Your task to perform on an android device: Play the new Taylor Swift video on YouTube Image 0: 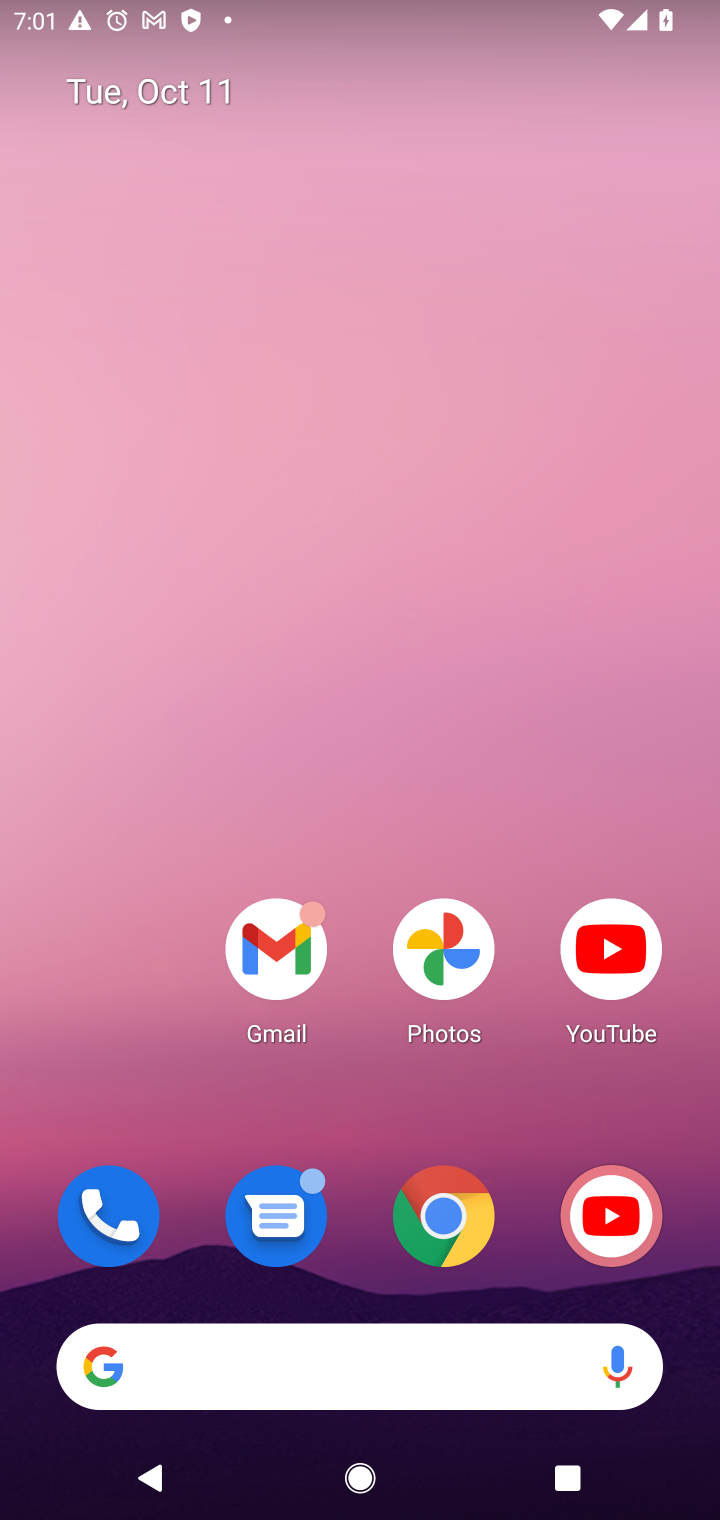
Step 0: click (478, 1214)
Your task to perform on an android device: Play the new Taylor Swift video on YouTube Image 1: 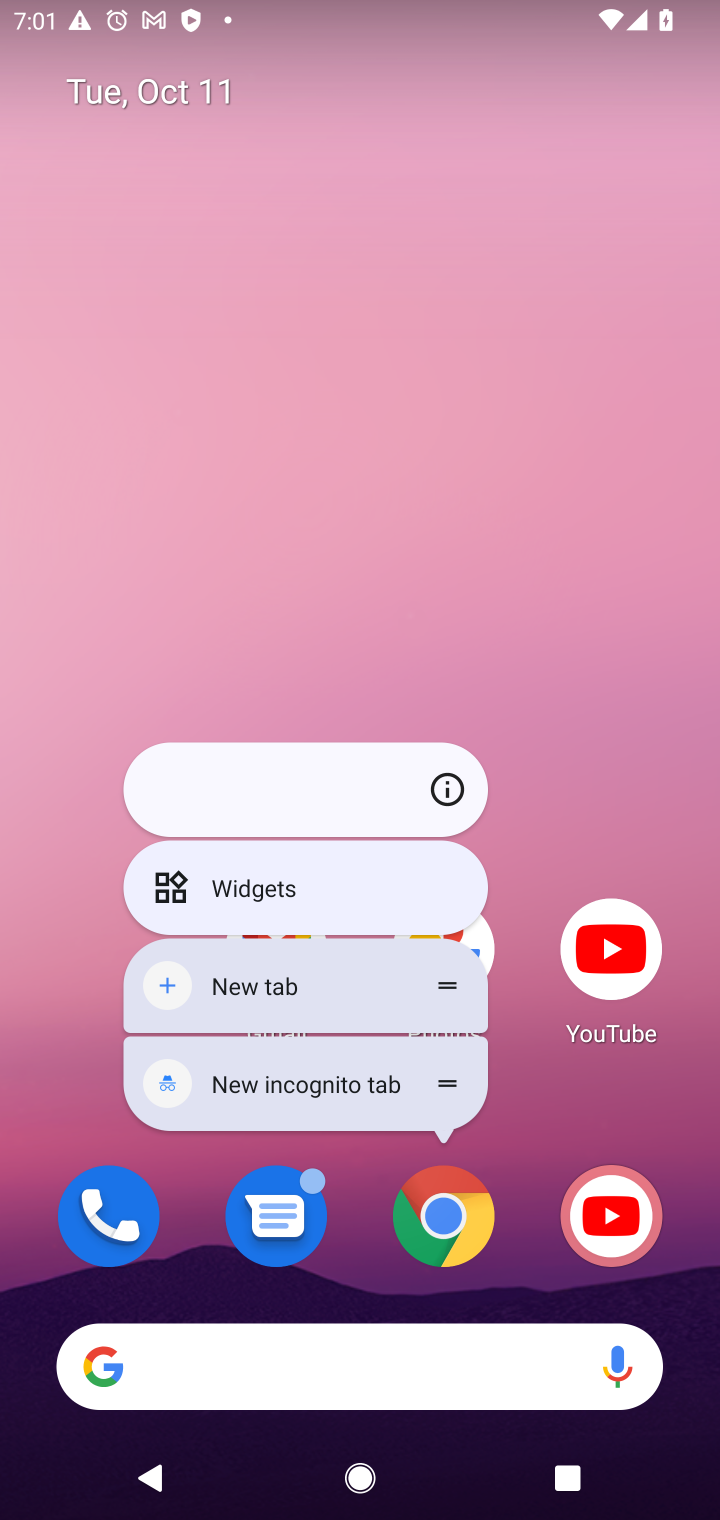
Step 1: click (453, 1213)
Your task to perform on an android device: Play the new Taylor Swift video on YouTube Image 2: 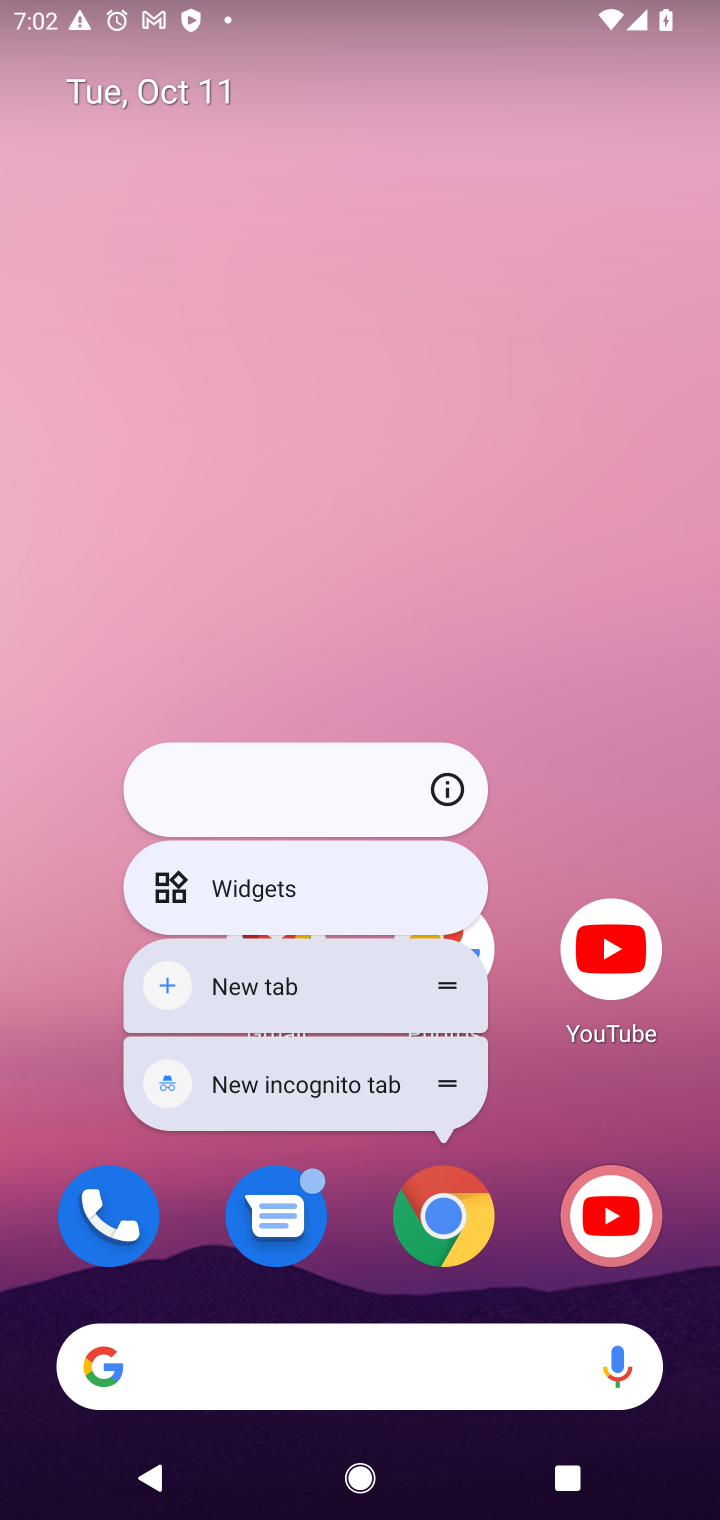
Step 2: click (617, 981)
Your task to perform on an android device: Play the new Taylor Swift video on YouTube Image 3: 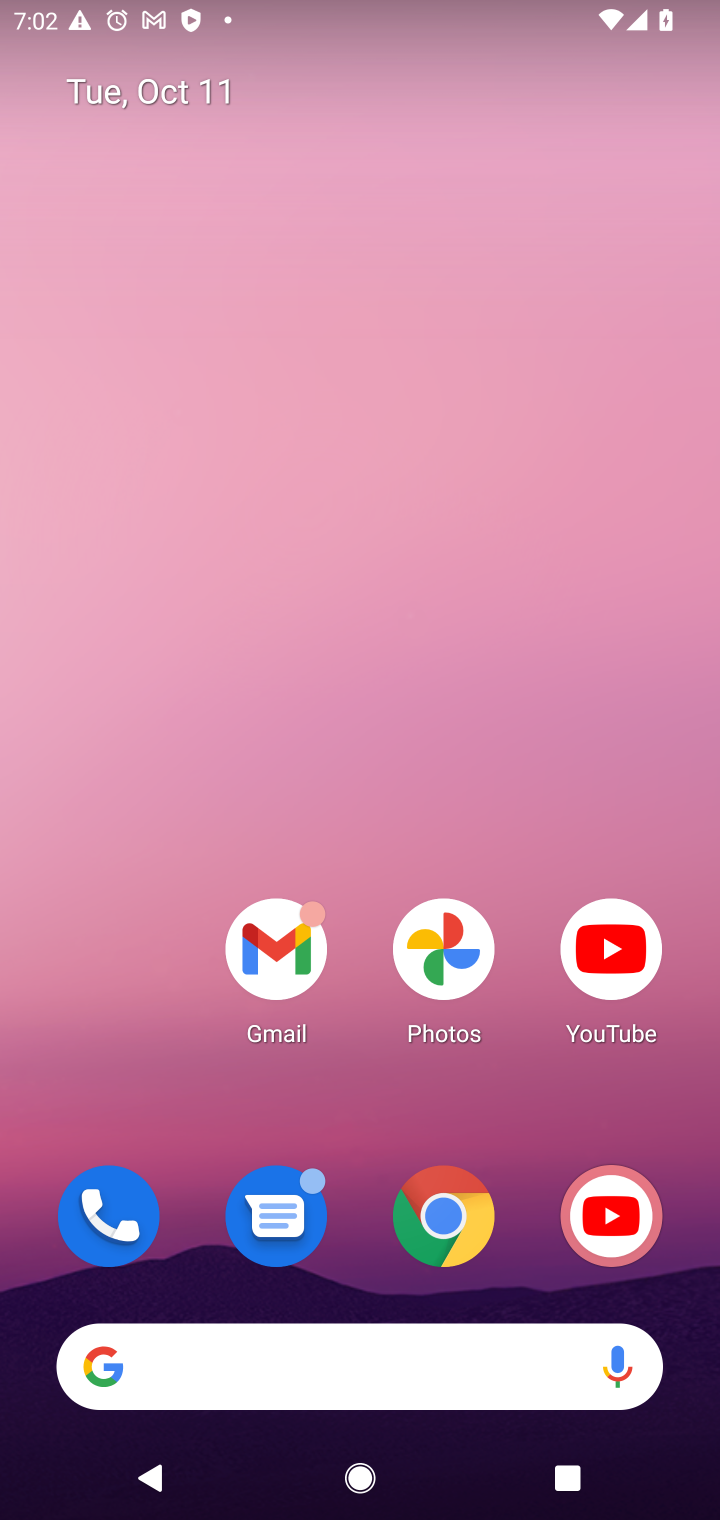
Step 3: click (617, 981)
Your task to perform on an android device: Play the new Taylor Swift video on YouTube Image 4: 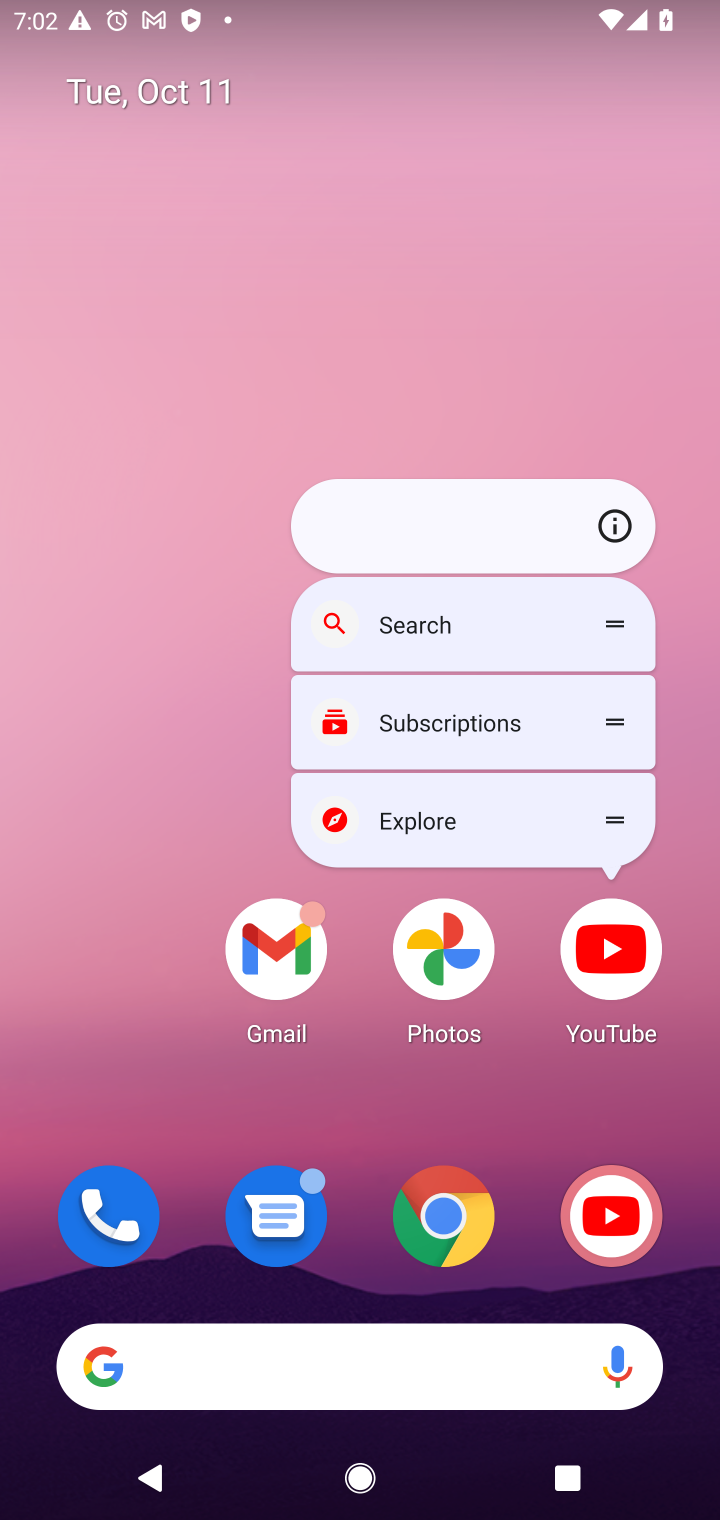
Step 4: click (617, 981)
Your task to perform on an android device: Play the new Taylor Swift video on YouTube Image 5: 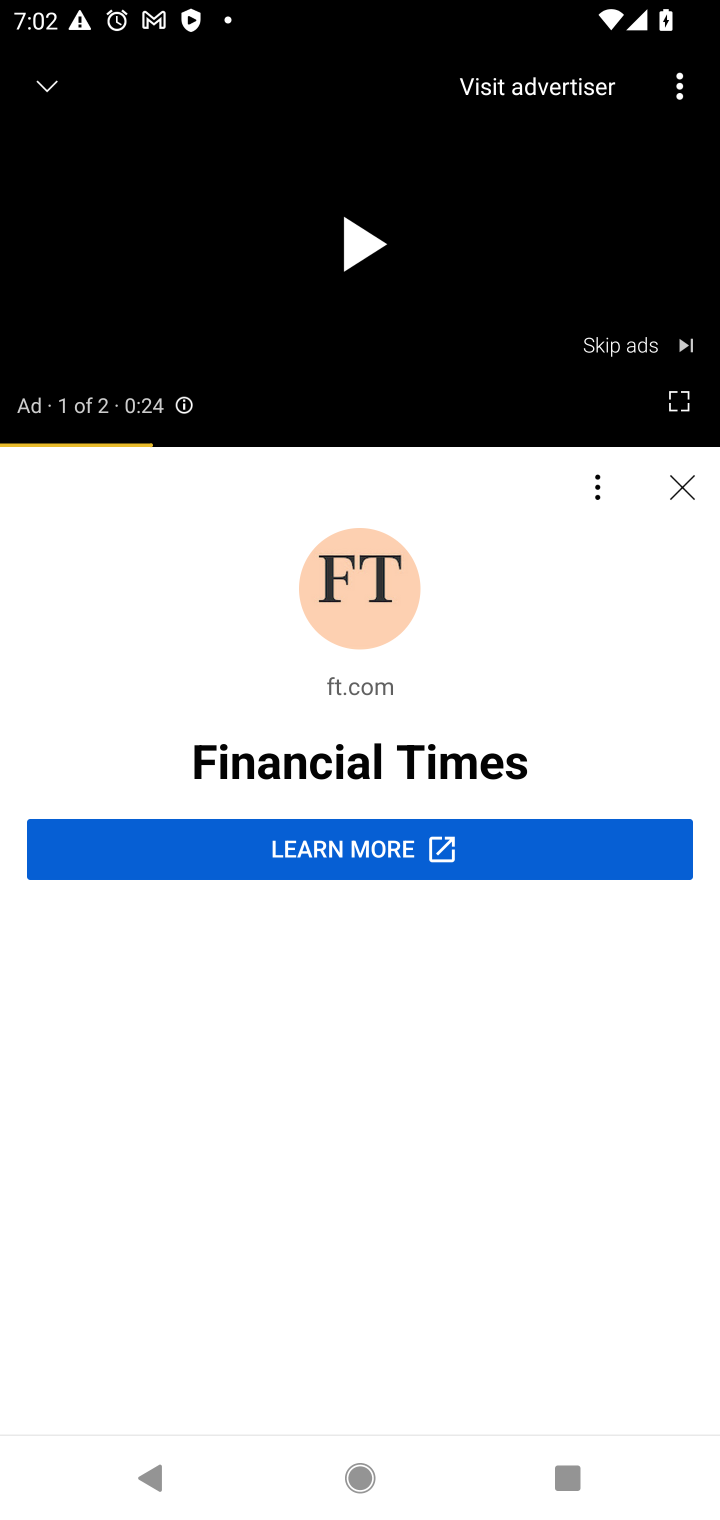
Step 5: click (63, 82)
Your task to perform on an android device: Play the new Taylor Swift video on YouTube Image 6: 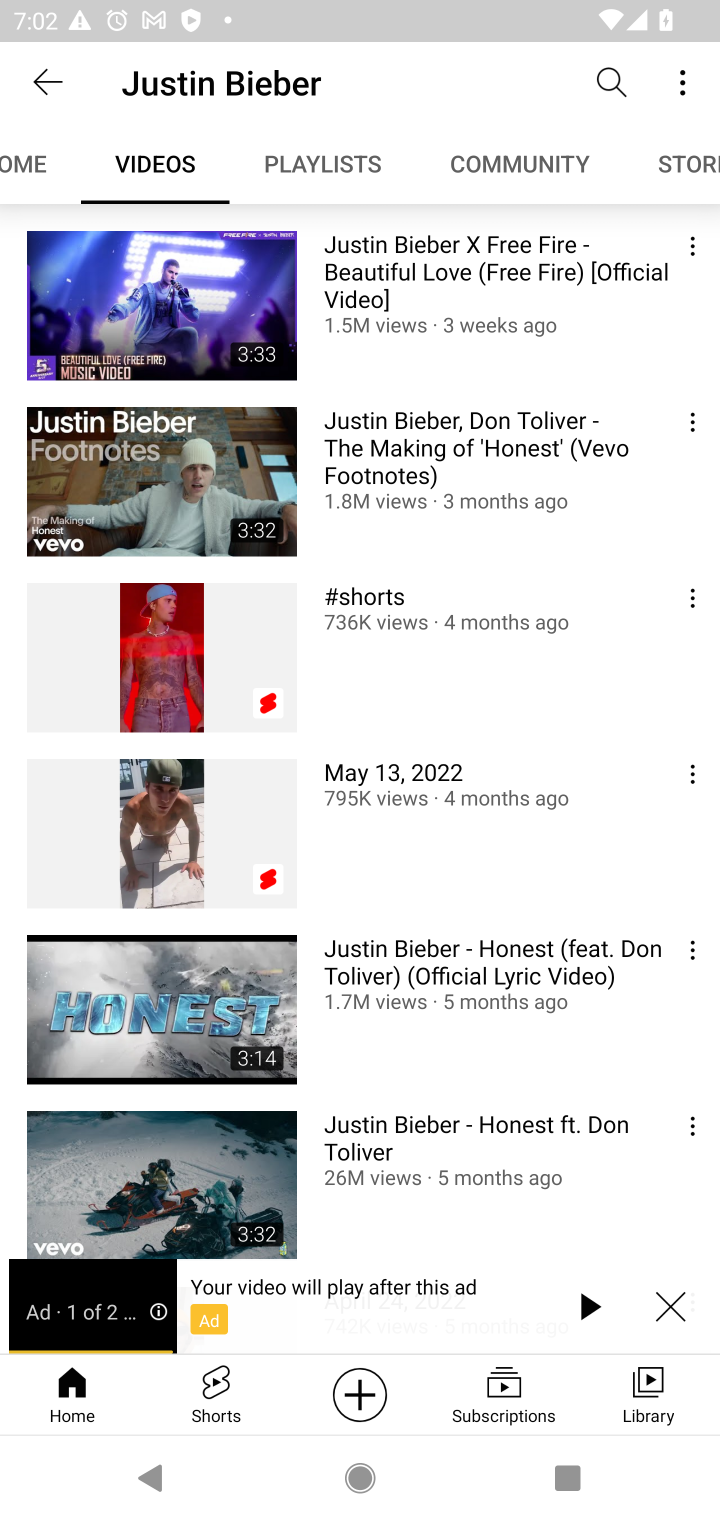
Step 6: click (605, 84)
Your task to perform on an android device: Play the new Taylor Swift video on YouTube Image 7: 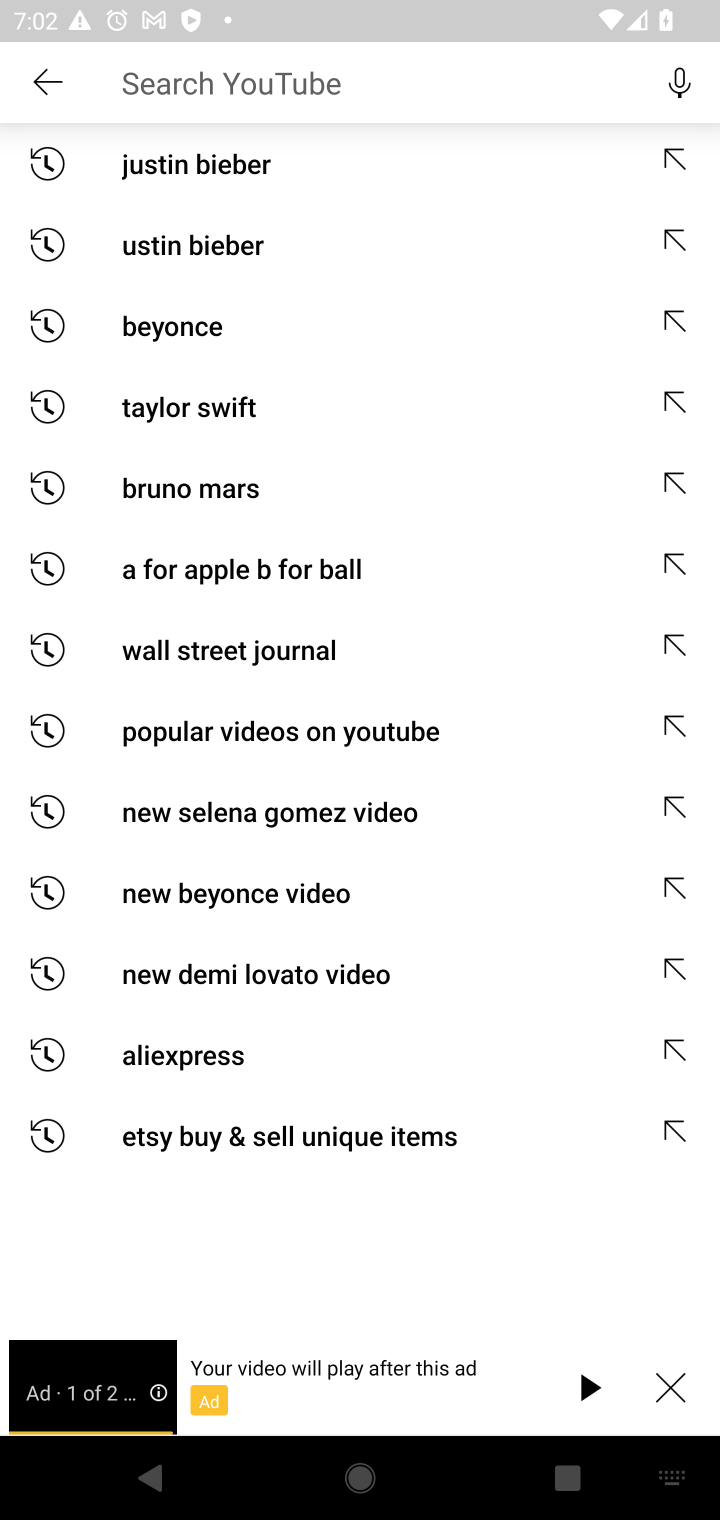
Step 7: click (252, 404)
Your task to perform on an android device: Play the new Taylor Swift video on YouTube Image 8: 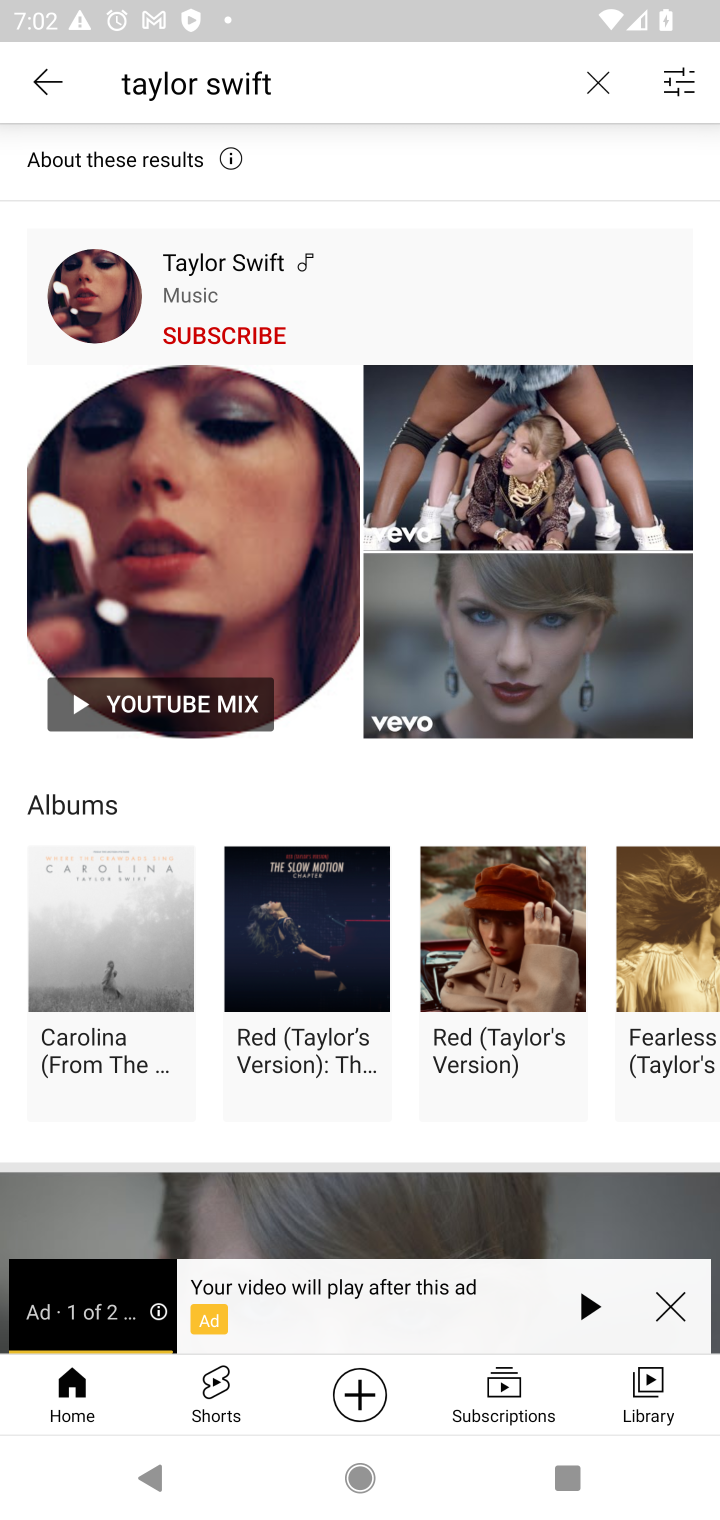
Step 8: click (122, 321)
Your task to perform on an android device: Play the new Taylor Swift video on YouTube Image 9: 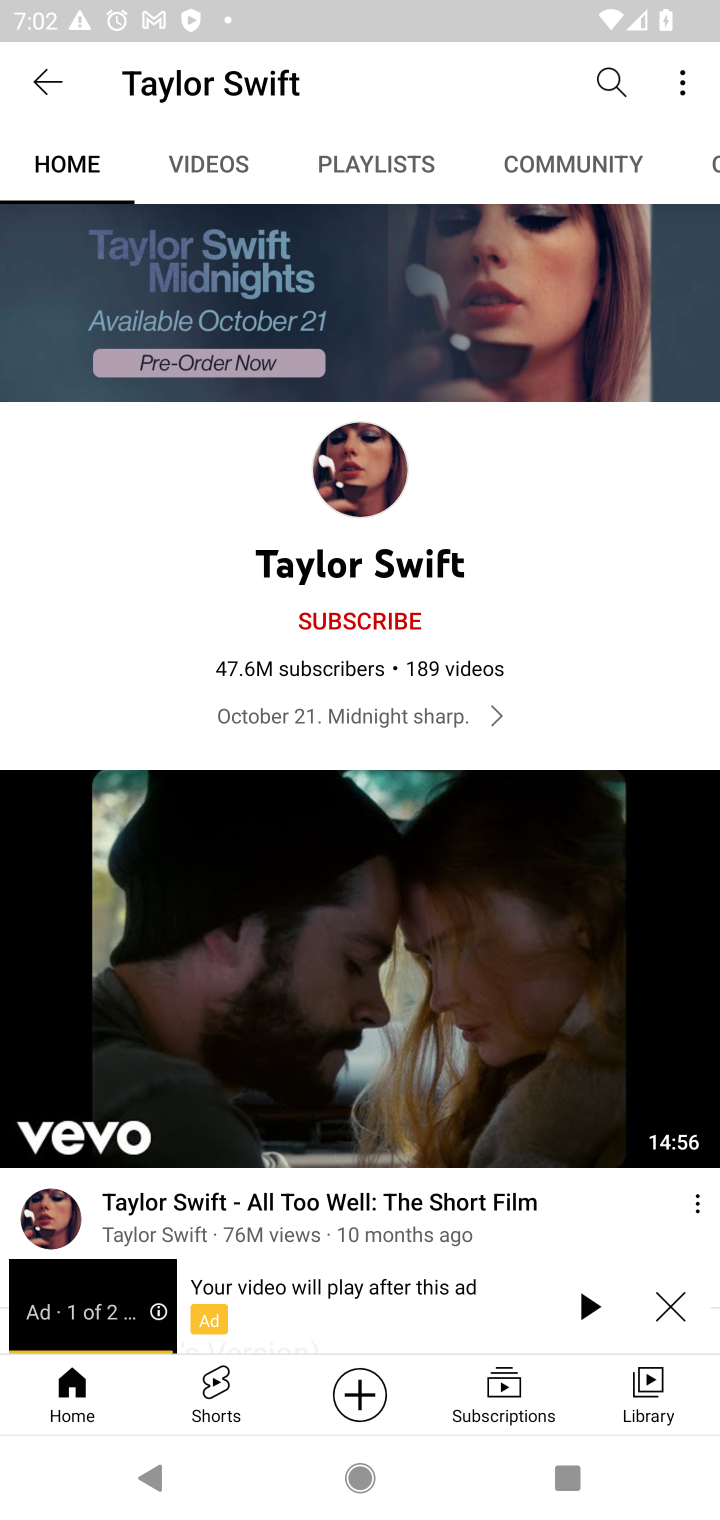
Step 9: click (233, 173)
Your task to perform on an android device: Play the new Taylor Swift video on YouTube Image 10: 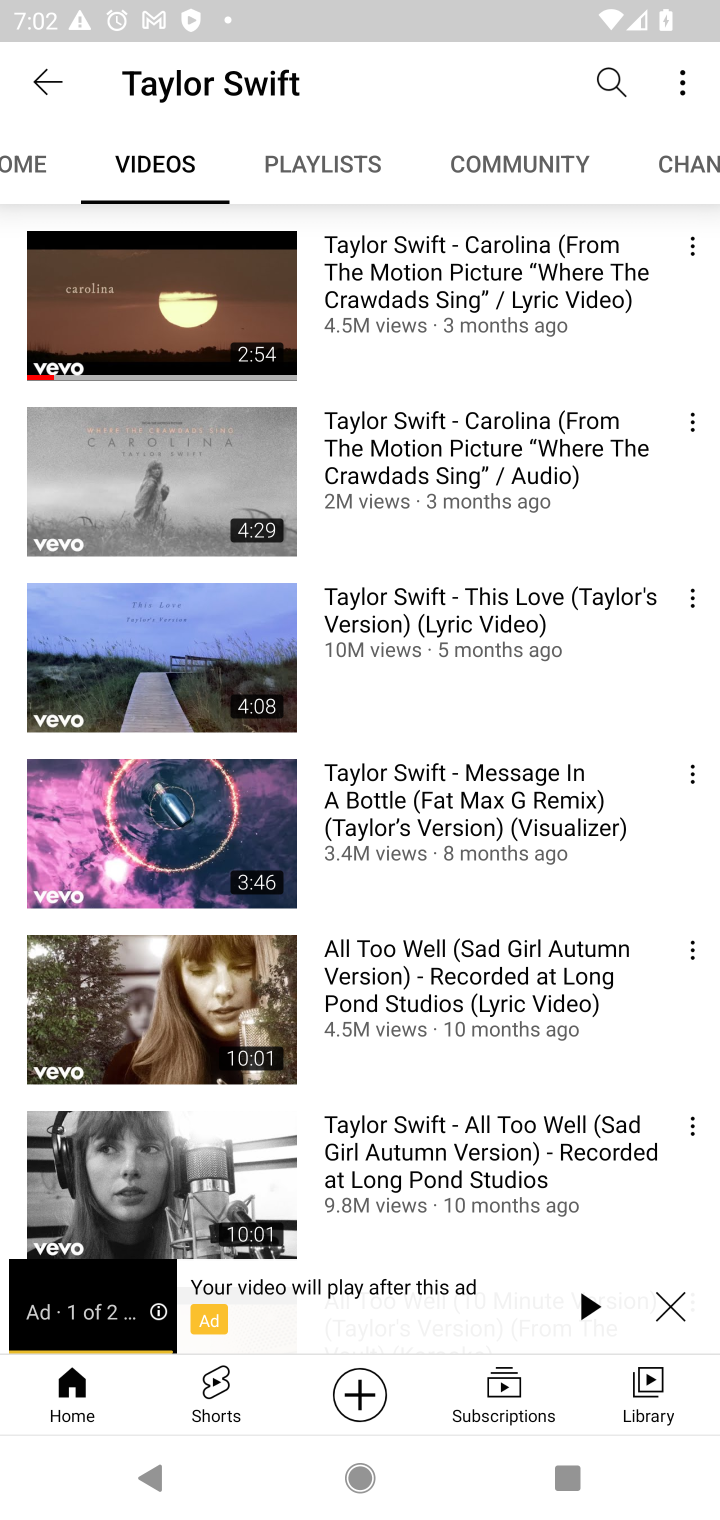
Step 10: click (215, 265)
Your task to perform on an android device: Play the new Taylor Swift video on YouTube Image 11: 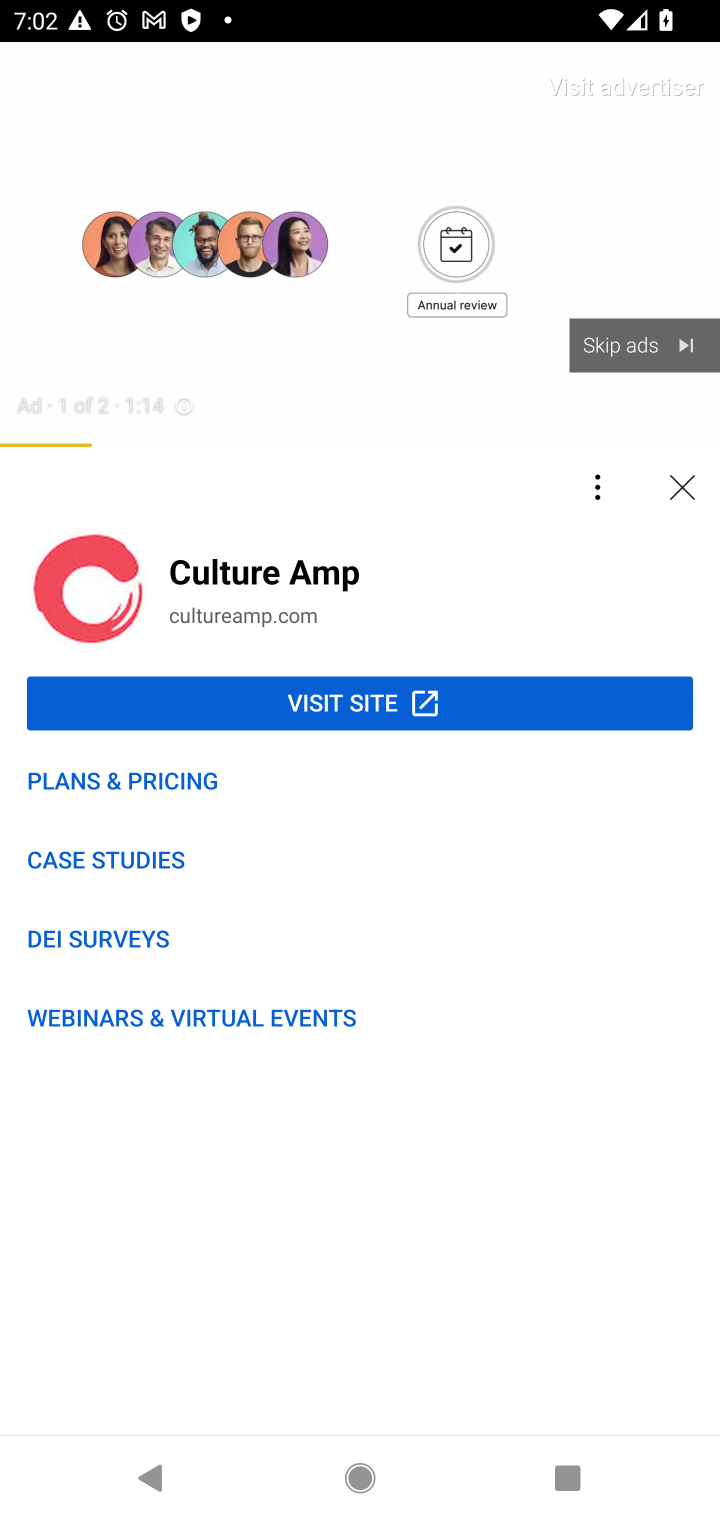
Step 11: click (595, 365)
Your task to perform on an android device: Play the new Taylor Swift video on YouTube Image 12: 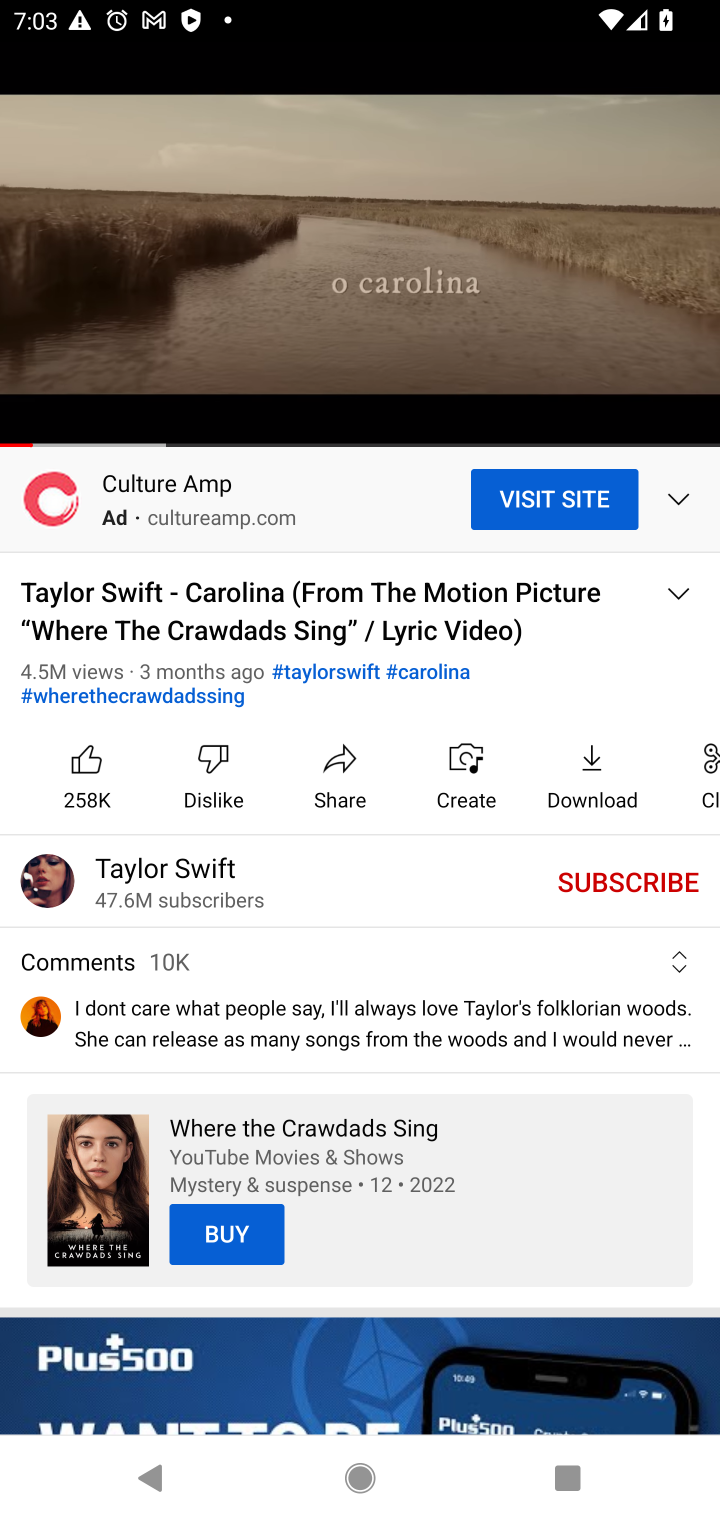
Step 12: task complete